Your task to perform on an android device: Open sound settings Image 0: 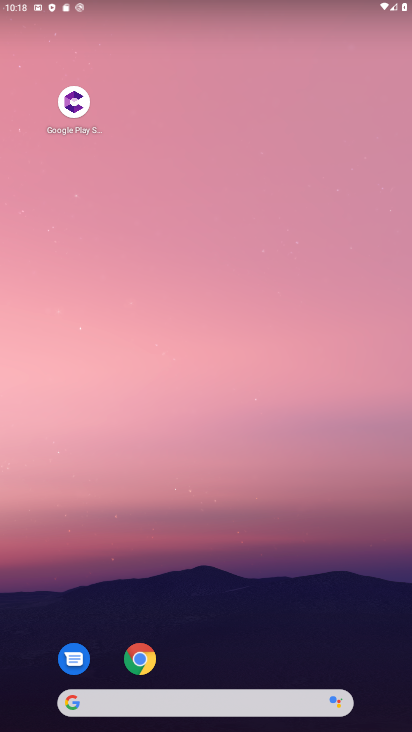
Step 0: drag from (264, 656) to (311, 52)
Your task to perform on an android device: Open sound settings Image 1: 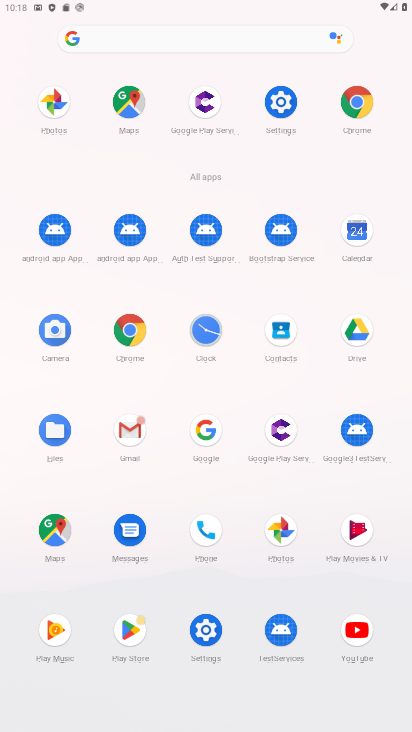
Step 1: click (287, 101)
Your task to perform on an android device: Open sound settings Image 2: 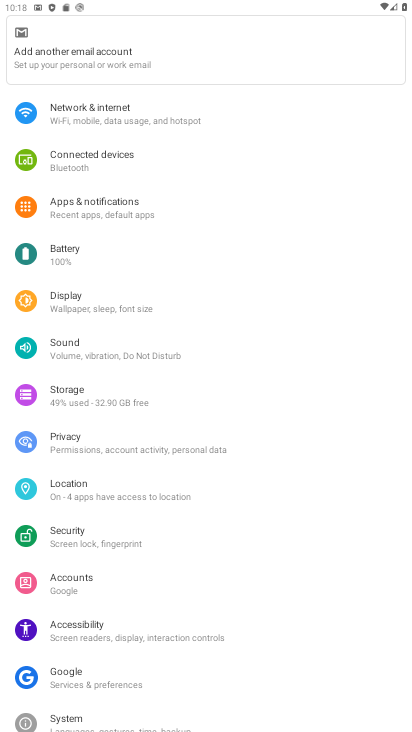
Step 2: click (114, 354)
Your task to perform on an android device: Open sound settings Image 3: 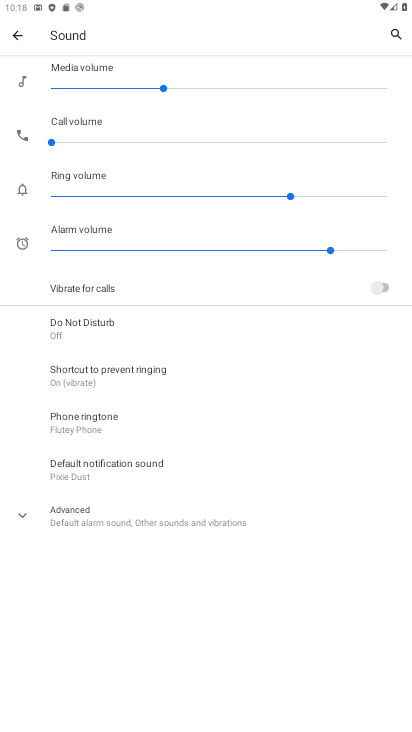
Step 3: task complete